Your task to perform on an android device: turn on priority inbox in the gmail app Image 0: 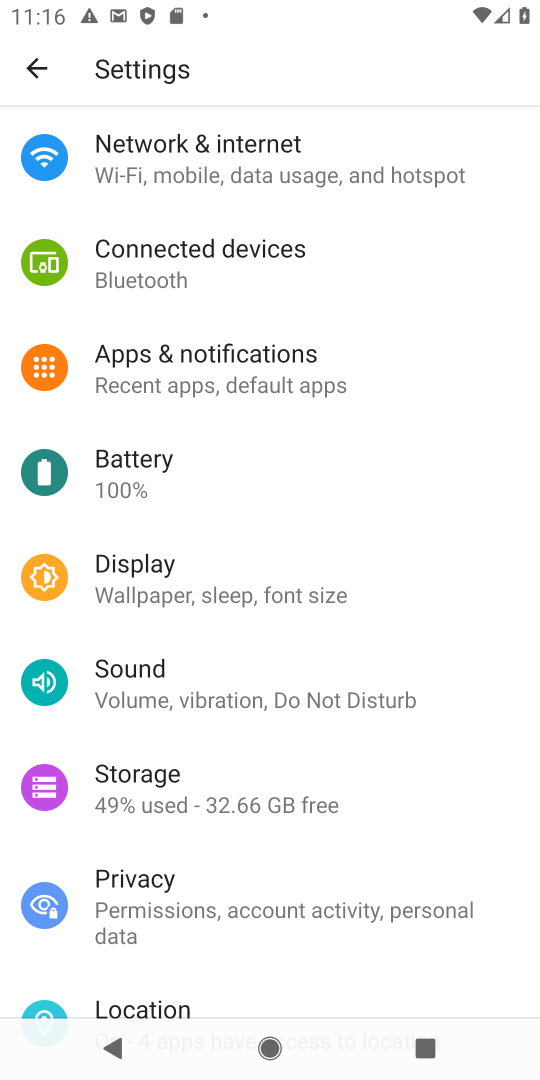
Step 0: press home button
Your task to perform on an android device: turn on priority inbox in the gmail app Image 1: 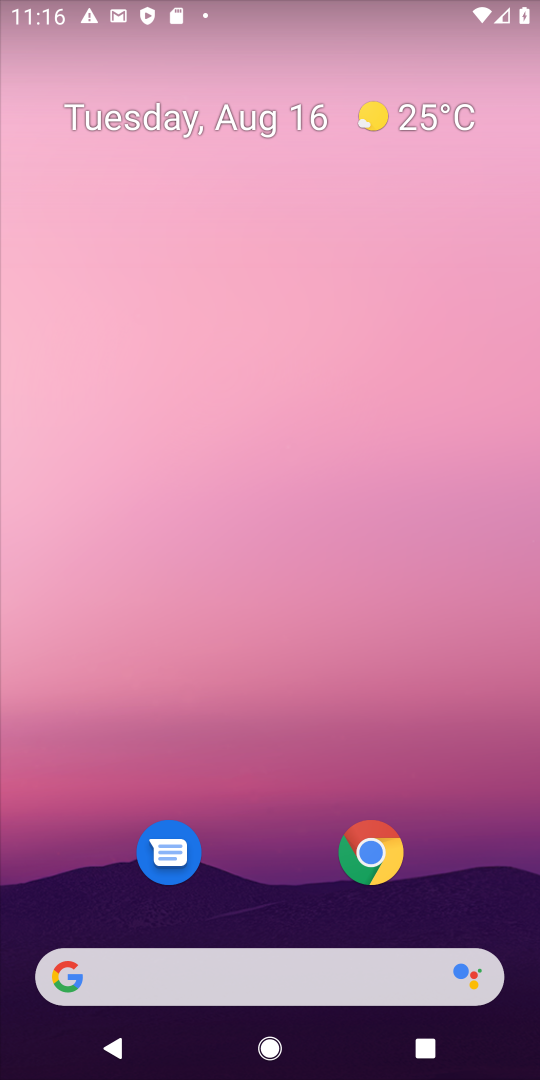
Step 1: drag from (288, 810) to (284, 367)
Your task to perform on an android device: turn on priority inbox in the gmail app Image 2: 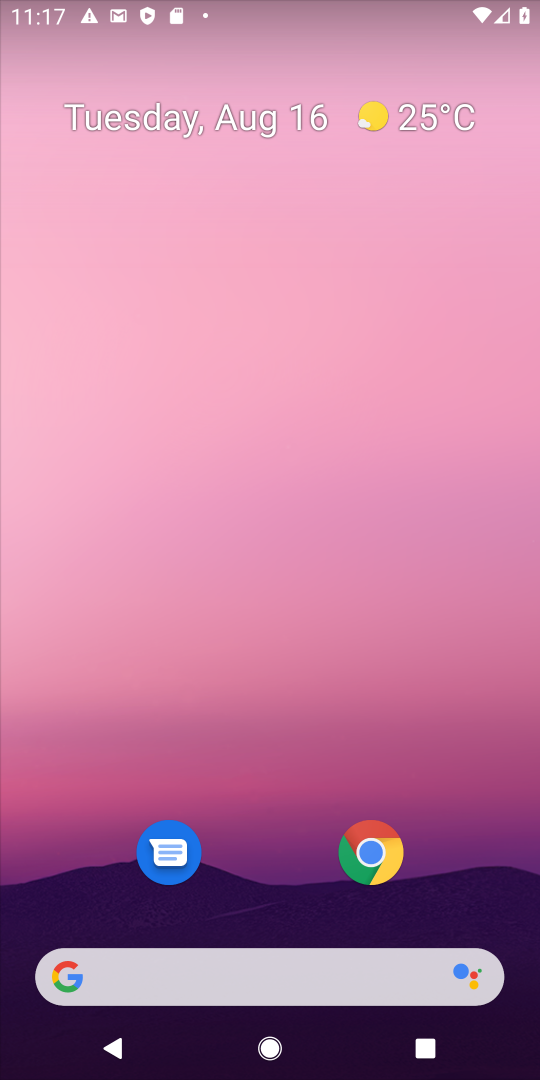
Step 2: drag from (297, 807) to (104, 201)
Your task to perform on an android device: turn on priority inbox in the gmail app Image 3: 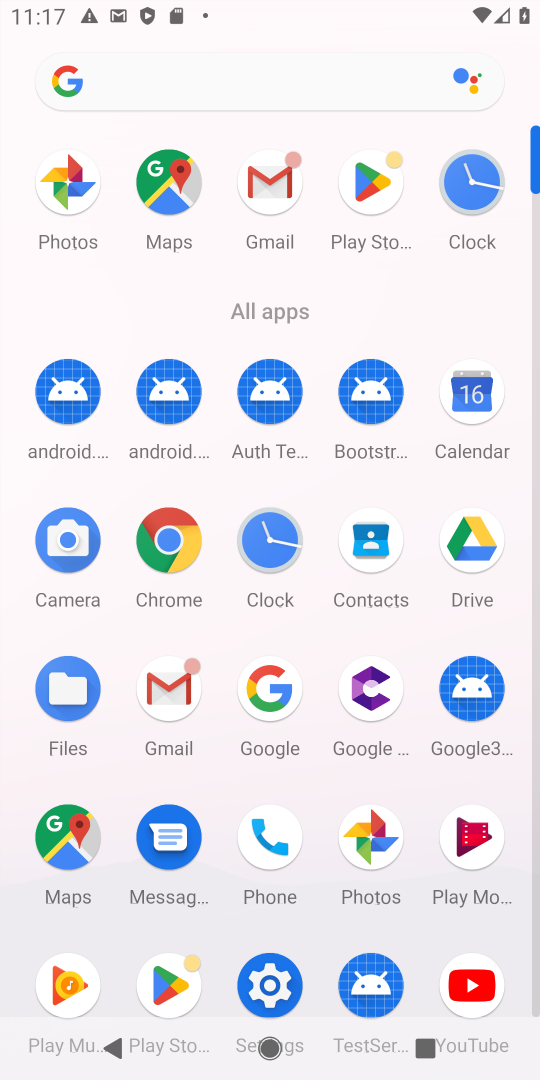
Step 3: click (281, 991)
Your task to perform on an android device: turn on priority inbox in the gmail app Image 4: 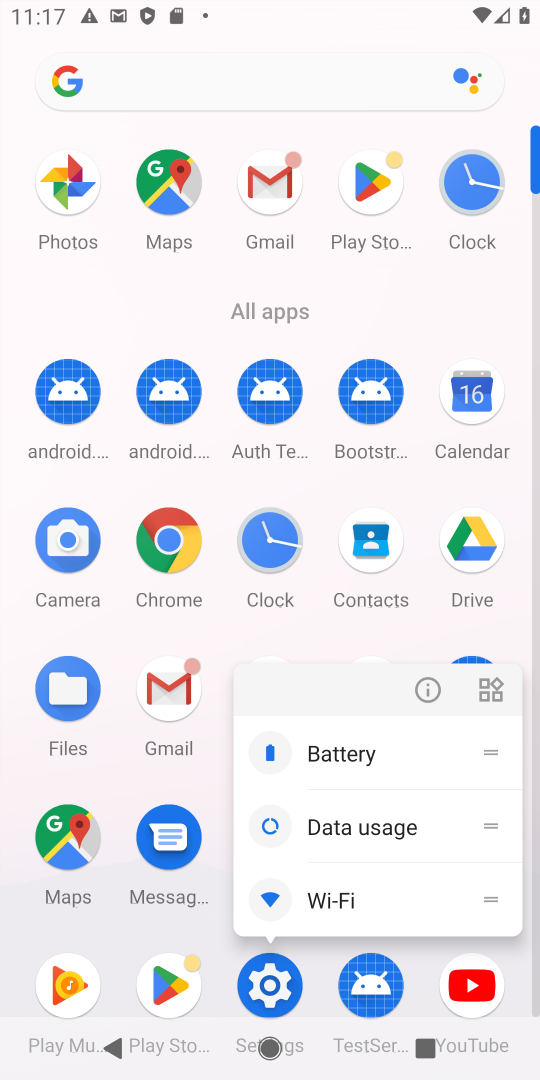
Step 4: task complete